Your task to perform on an android device: Go to Yahoo.com Image 0: 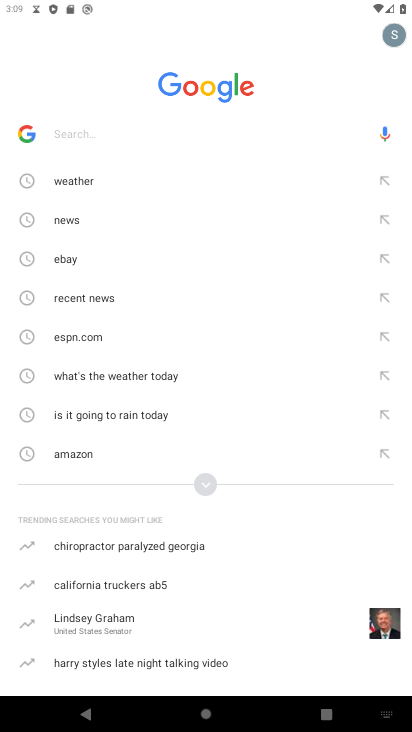
Step 0: press home button
Your task to perform on an android device: Go to Yahoo.com Image 1: 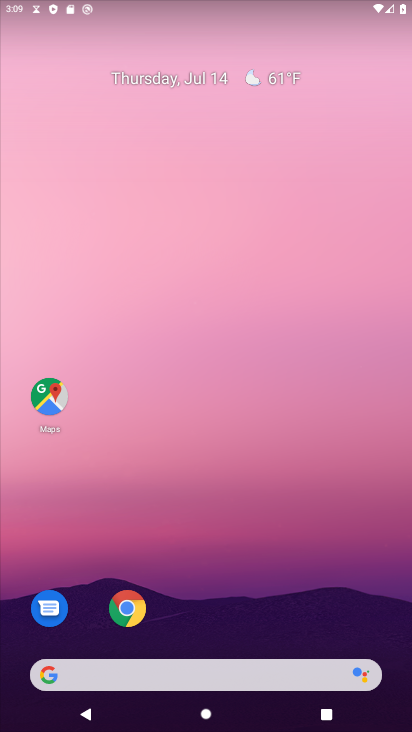
Step 1: click (123, 595)
Your task to perform on an android device: Go to Yahoo.com Image 2: 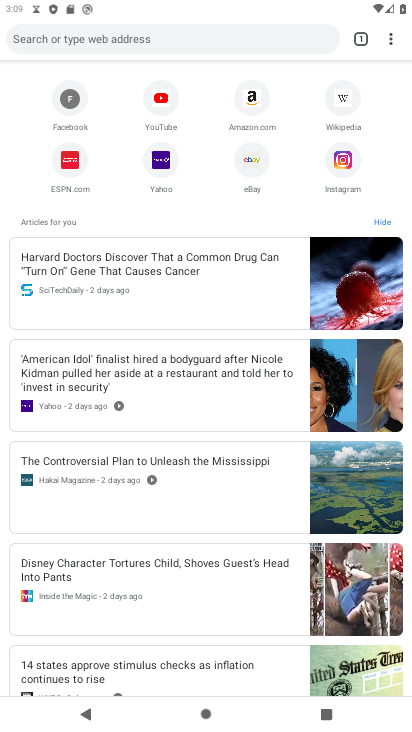
Step 2: click (157, 168)
Your task to perform on an android device: Go to Yahoo.com Image 3: 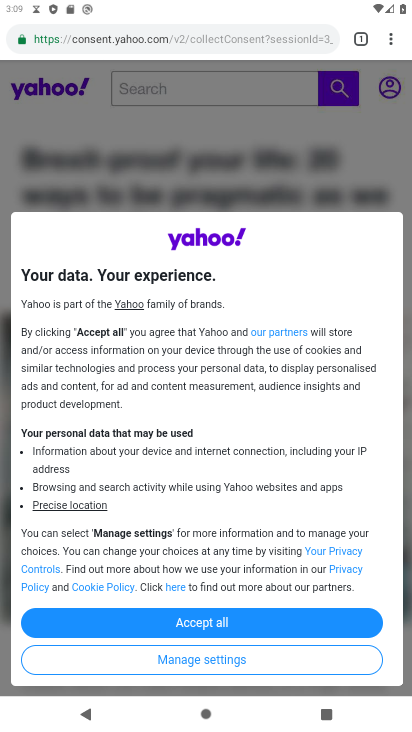
Step 3: task complete